Your task to perform on an android device: Open network settings Image 0: 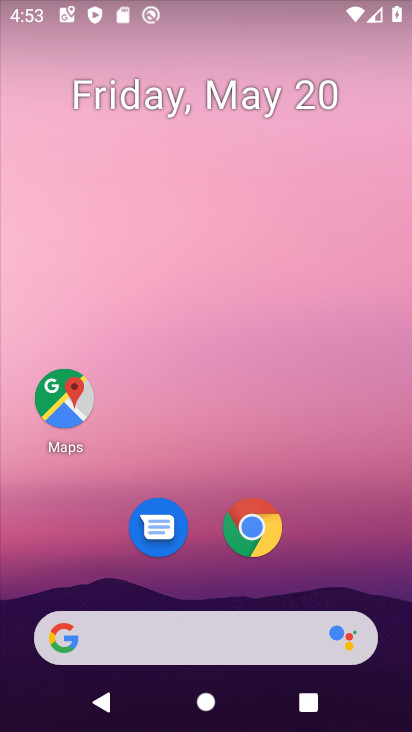
Step 0: drag from (150, 591) to (202, 223)
Your task to perform on an android device: Open network settings Image 1: 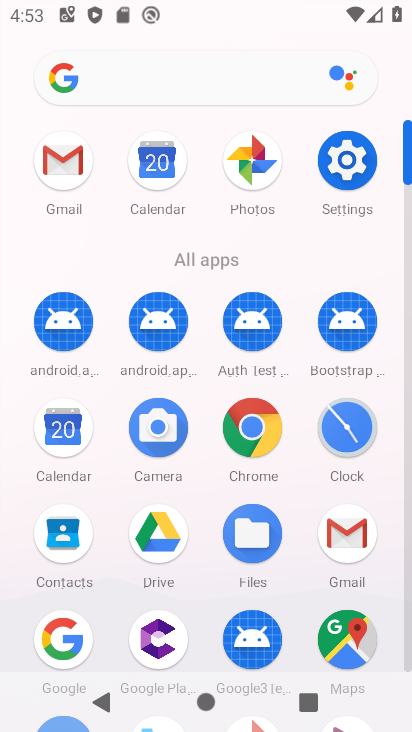
Step 1: click (353, 172)
Your task to perform on an android device: Open network settings Image 2: 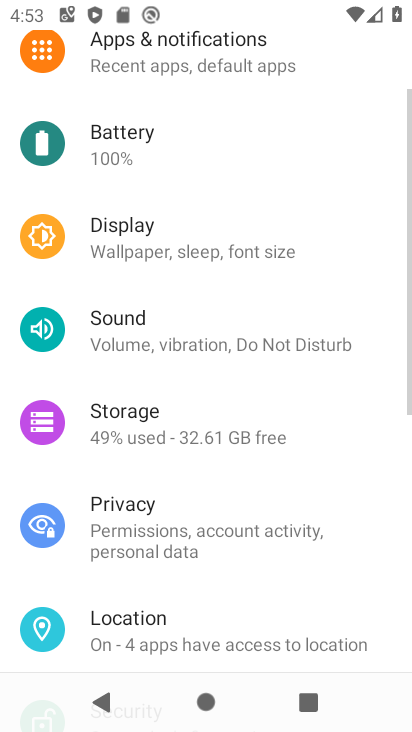
Step 2: drag from (154, 91) to (210, 455)
Your task to perform on an android device: Open network settings Image 3: 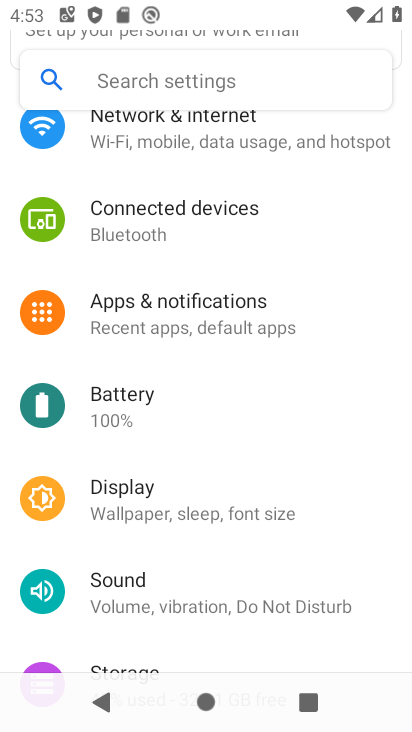
Step 3: drag from (243, 259) to (258, 488)
Your task to perform on an android device: Open network settings Image 4: 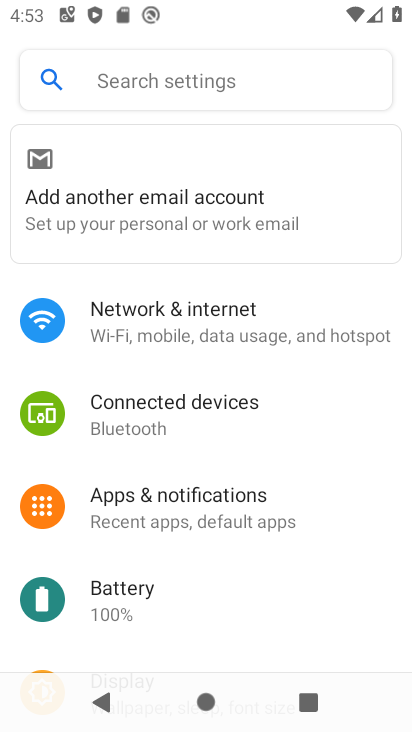
Step 4: click (211, 293)
Your task to perform on an android device: Open network settings Image 5: 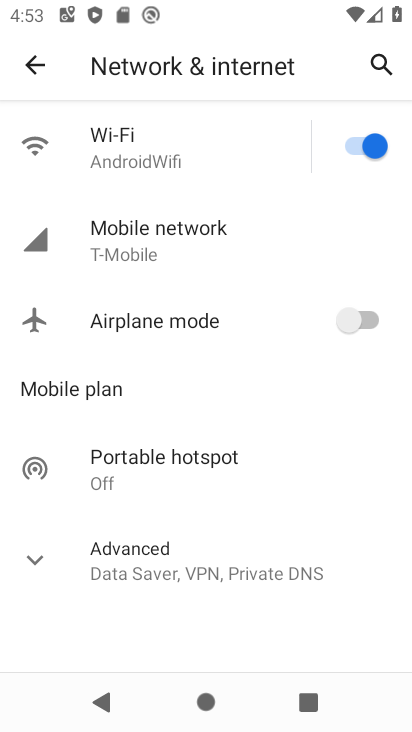
Step 5: click (157, 564)
Your task to perform on an android device: Open network settings Image 6: 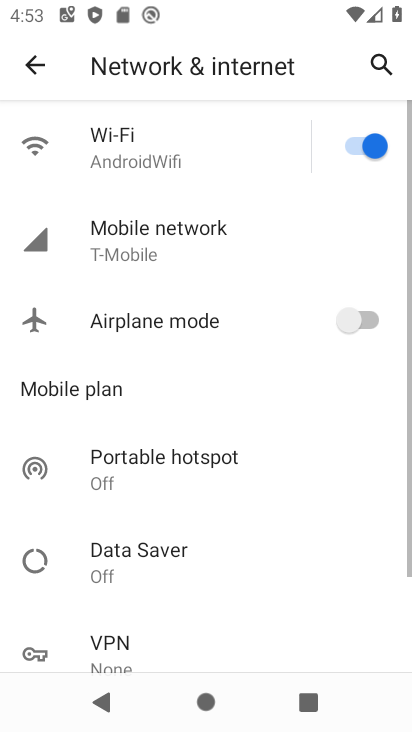
Step 6: task complete